Your task to perform on an android device: Add "bose soundlink" to the cart on costco.com, then select checkout. Image 0: 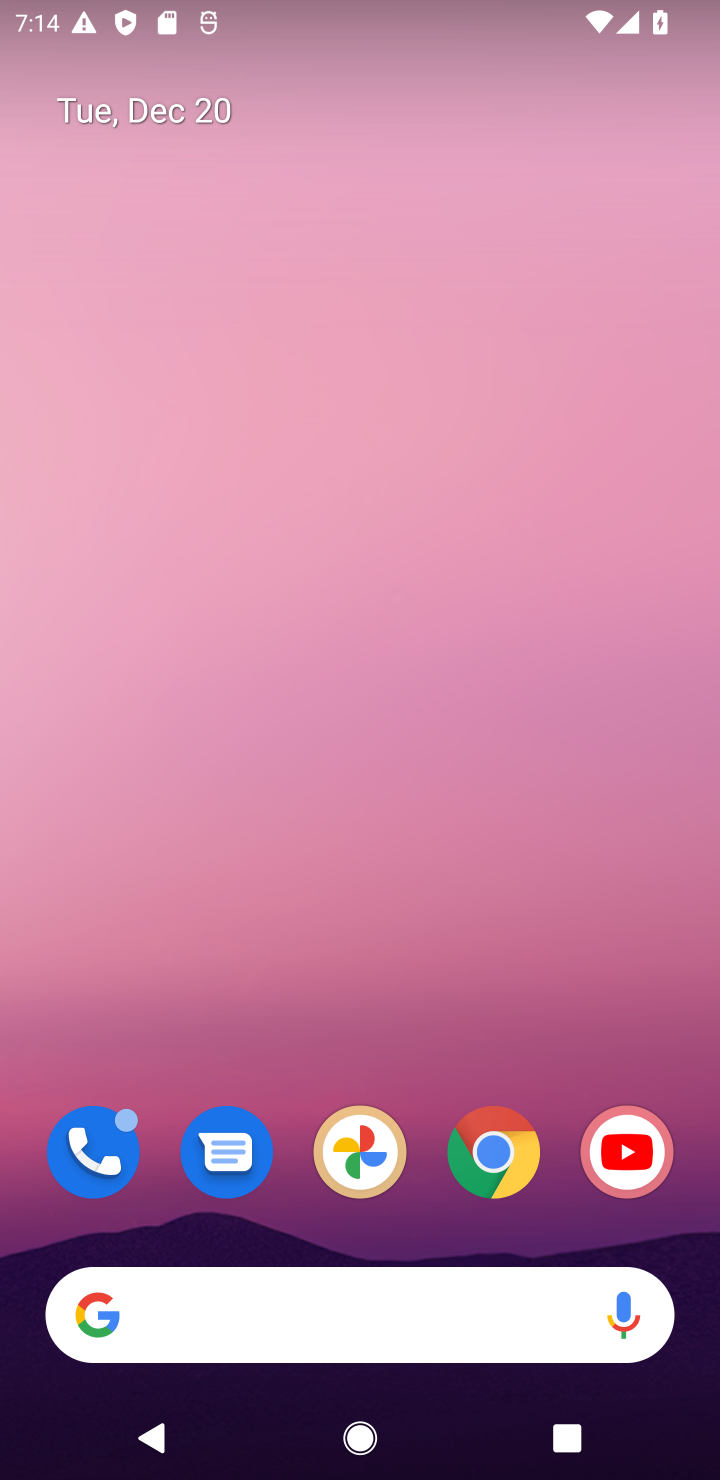
Step 0: click (493, 1147)
Your task to perform on an android device: Add "bose soundlink" to the cart on costco.com, then select checkout. Image 1: 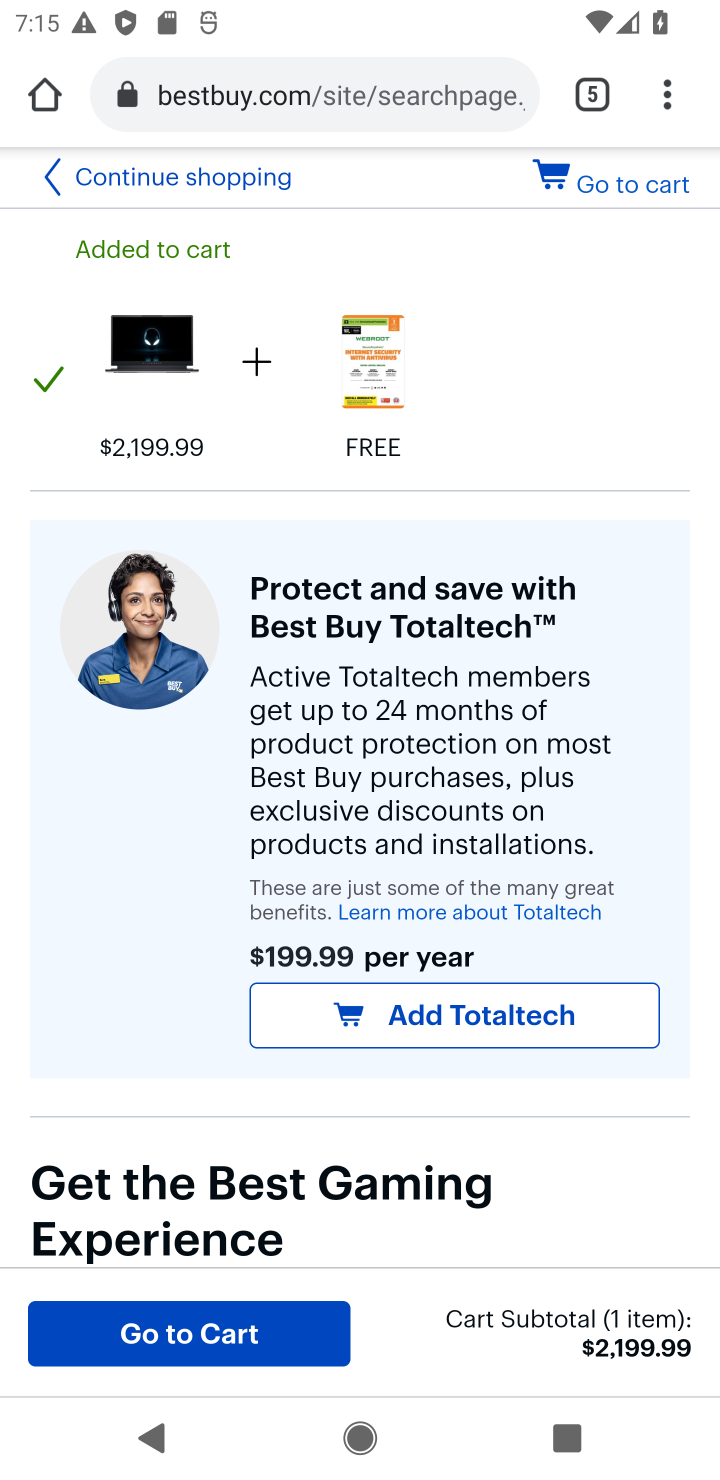
Step 1: click (594, 87)
Your task to perform on an android device: Add "bose soundlink" to the cart on costco.com, then select checkout. Image 2: 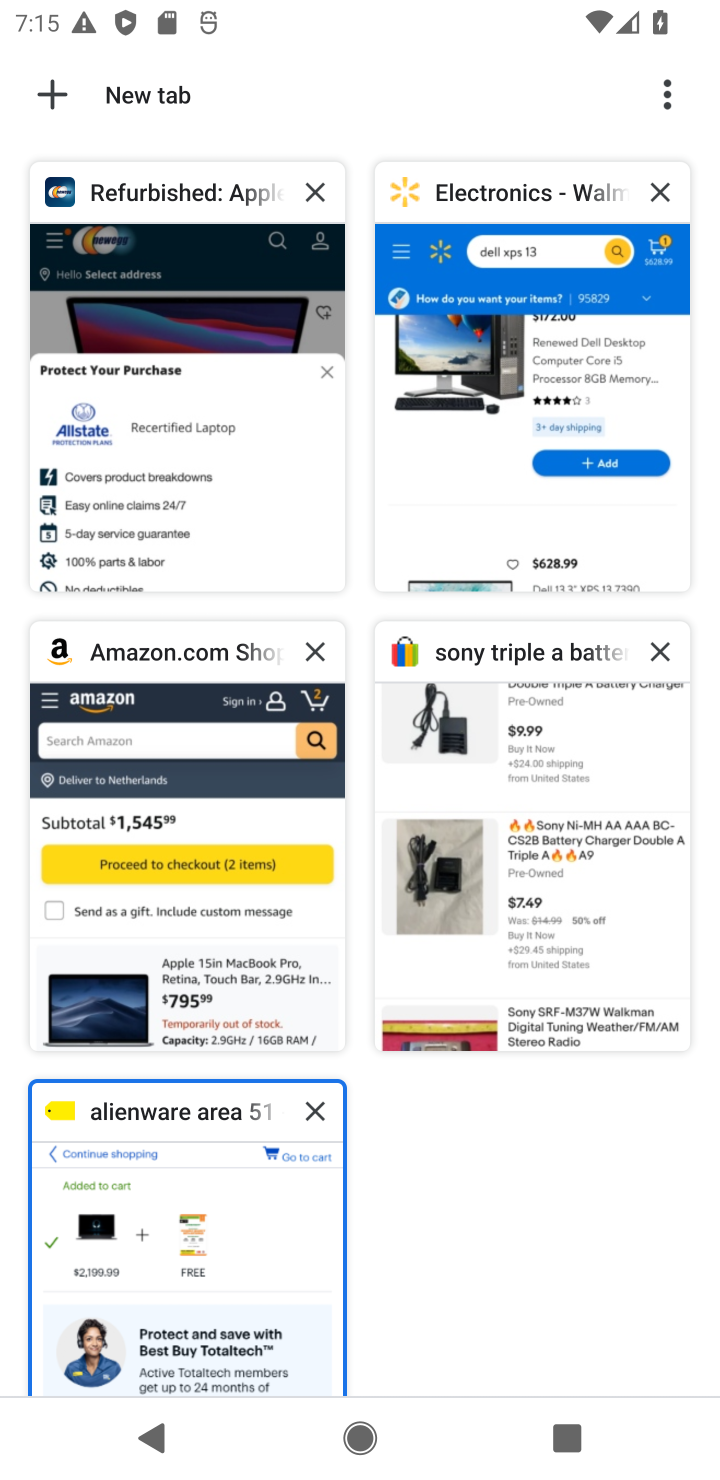
Step 2: click (56, 97)
Your task to perform on an android device: Add "bose soundlink" to the cart on costco.com, then select checkout. Image 3: 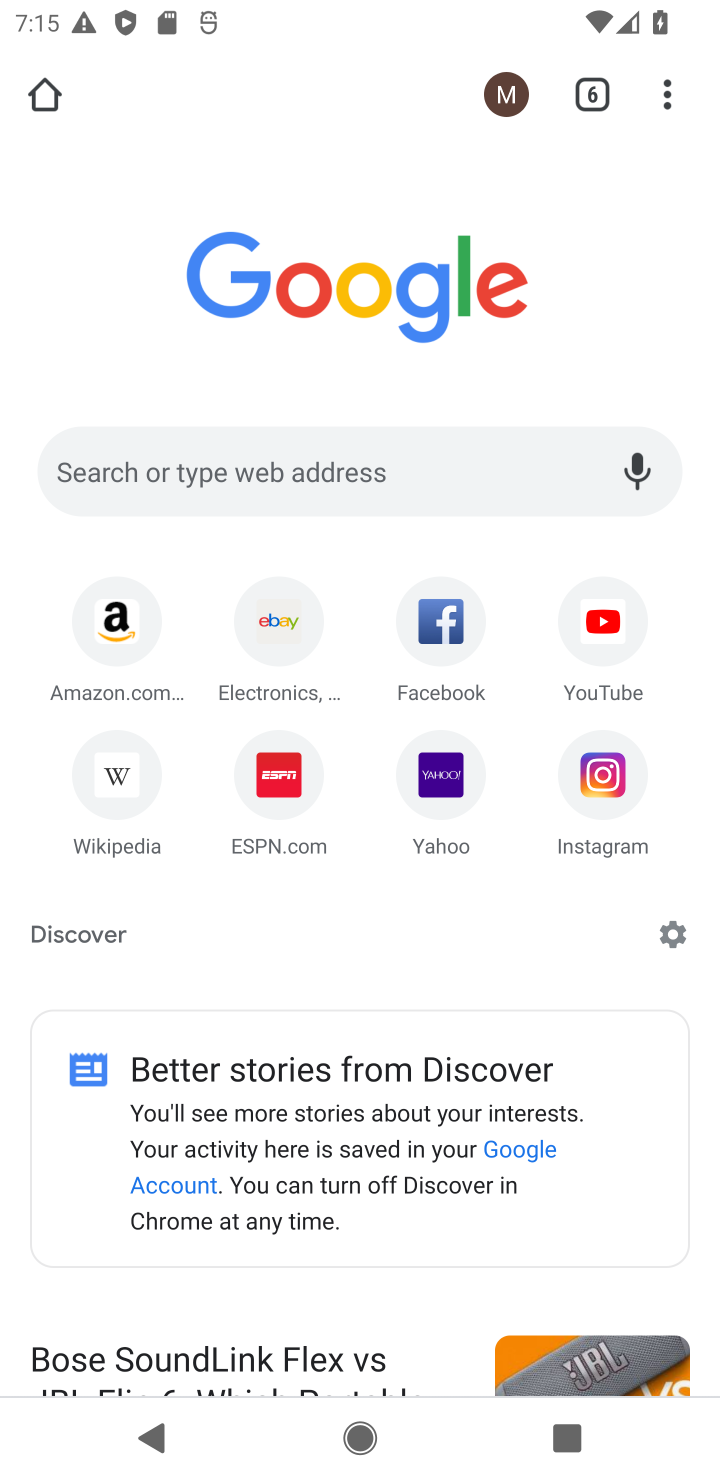
Step 3: click (197, 474)
Your task to perform on an android device: Add "bose soundlink" to the cart on costco.com, then select checkout. Image 4: 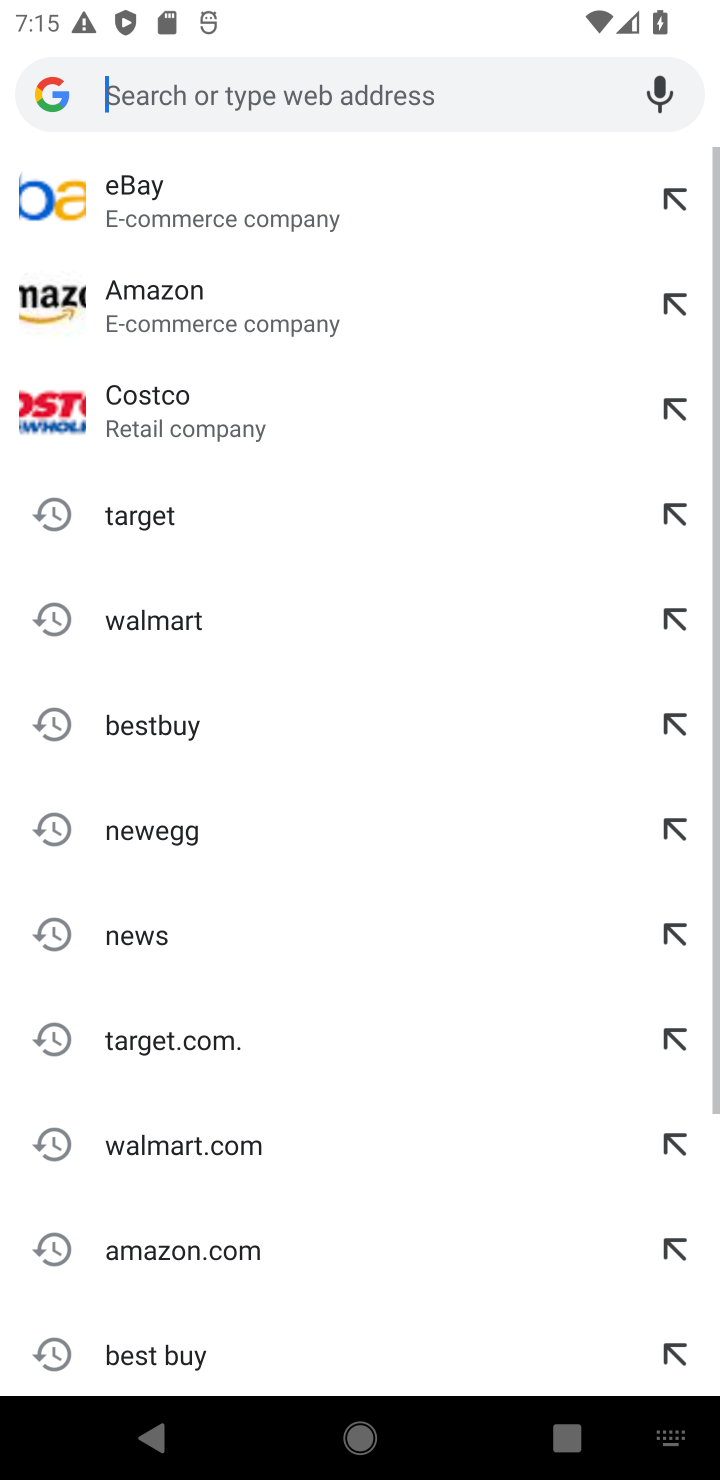
Step 4: click (110, 399)
Your task to perform on an android device: Add "bose soundlink" to the cart on costco.com, then select checkout. Image 5: 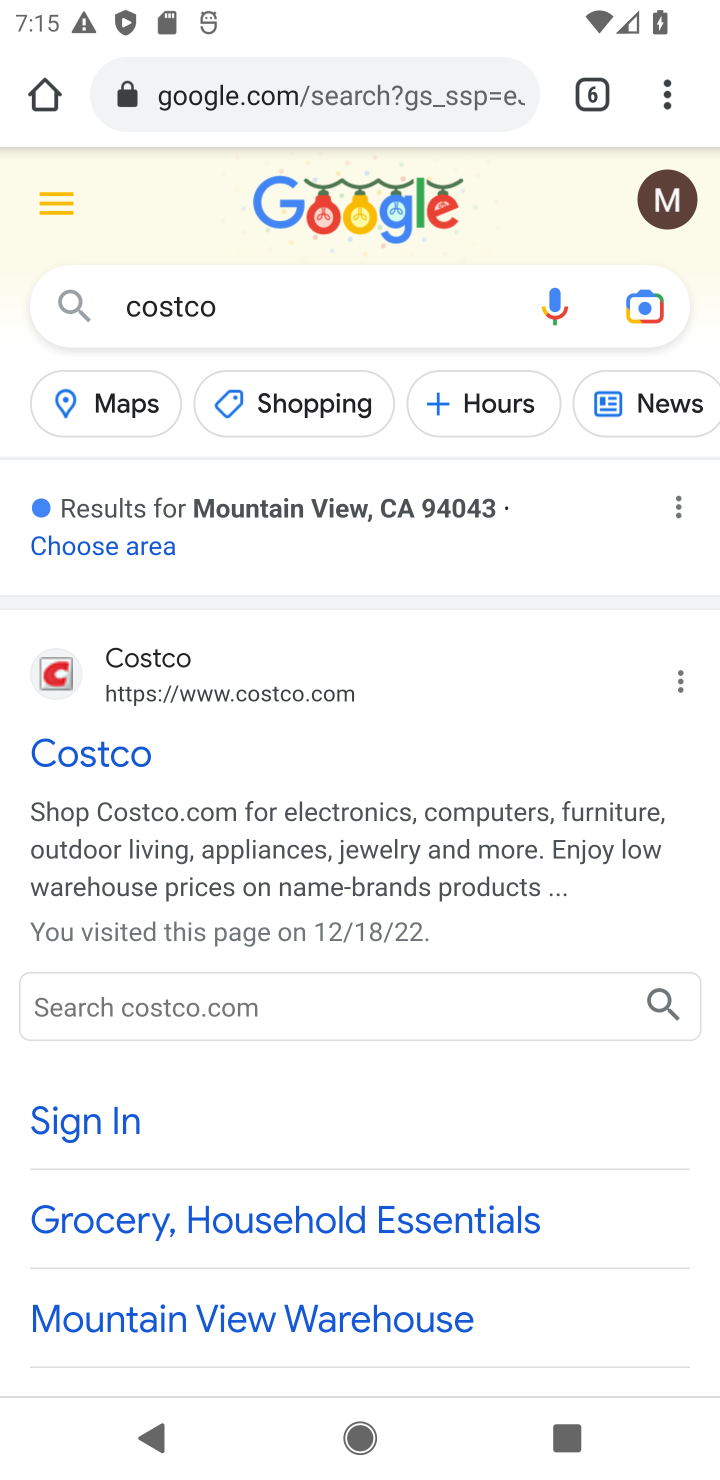
Step 5: click (127, 1003)
Your task to perform on an android device: Add "bose soundlink" to the cart on costco.com, then select checkout. Image 6: 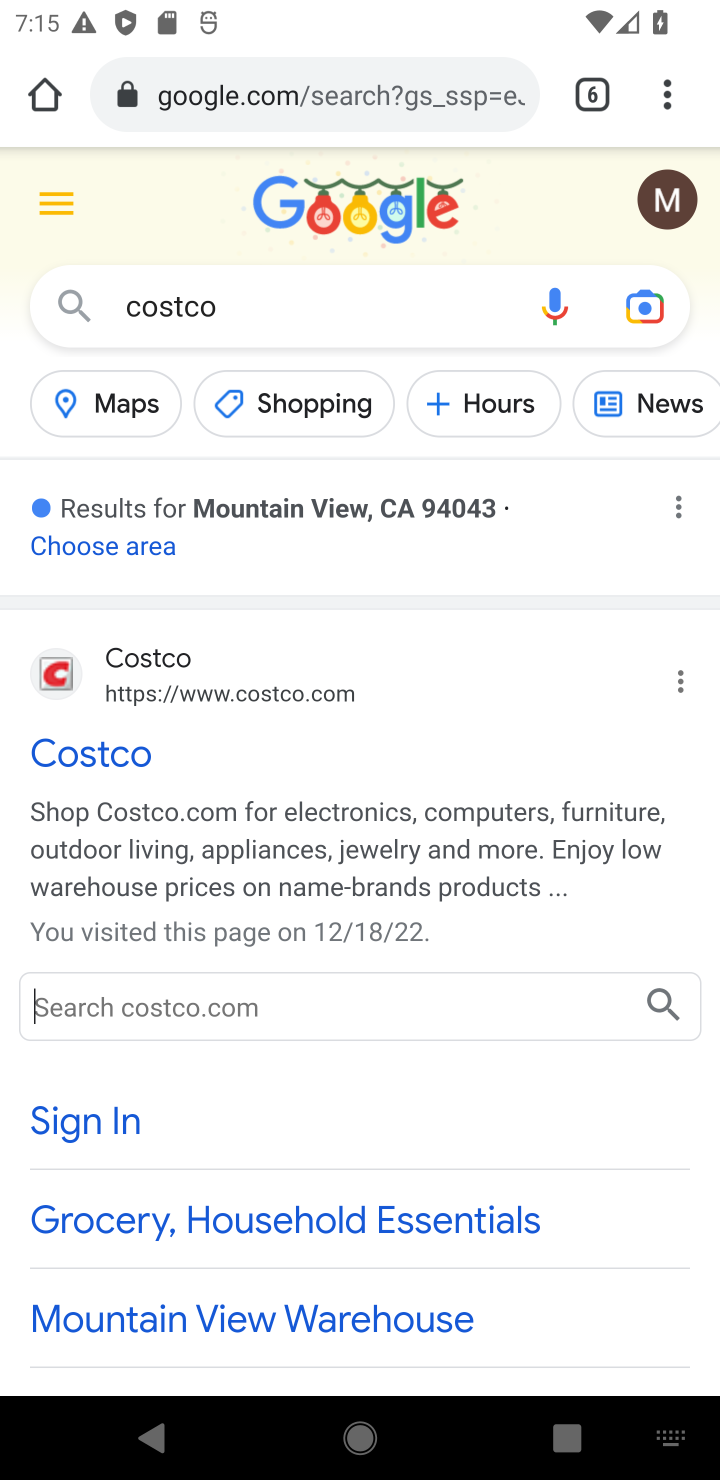
Step 6: type "bose soundlink"
Your task to perform on an android device: Add "bose soundlink" to the cart on costco.com, then select checkout. Image 7: 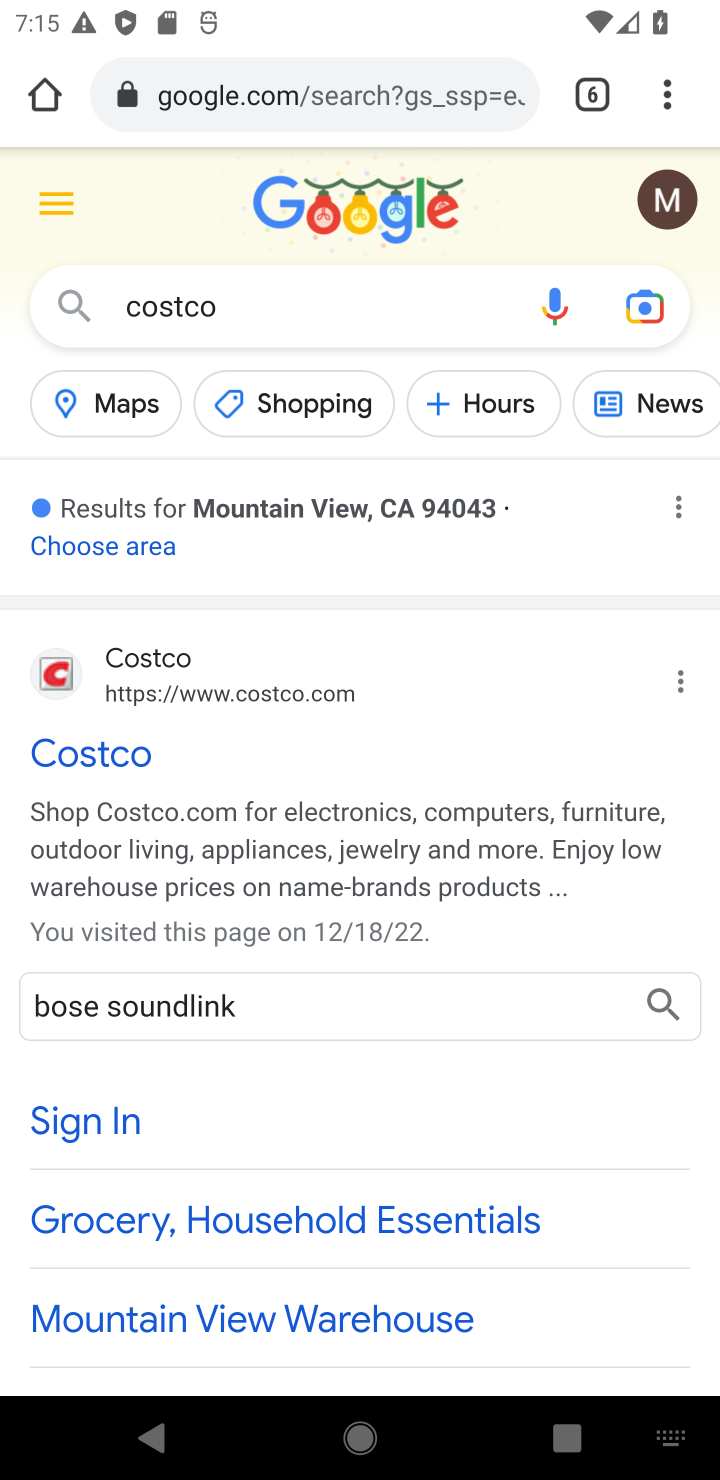
Step 7: click (658, 1000)
Your task to perform on an android device: Add "bose soundlink" to the cart on costco.com, then select checkout. Image 8: 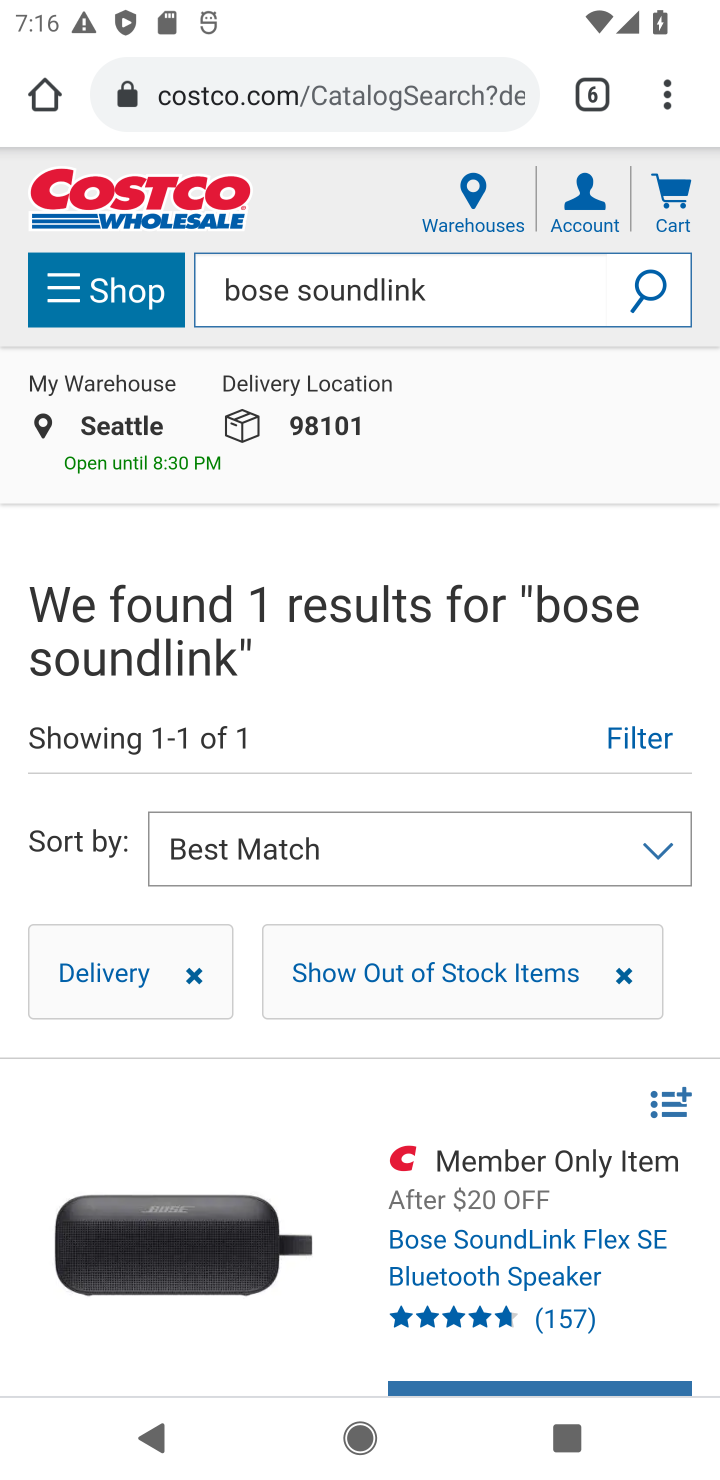
Step 8: task complete